Your task to perform on an android device: Do I have any events today? Image 0: 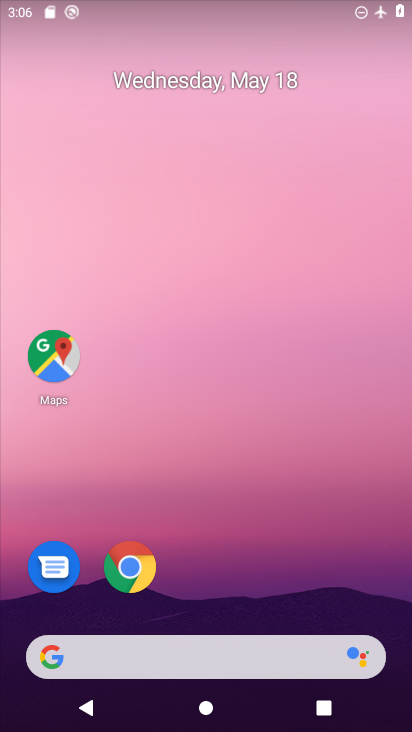
Step 0: drag from (231, 545) to (193, 285)
Your task to perform on an android device: Do I have any events today? Image 1: 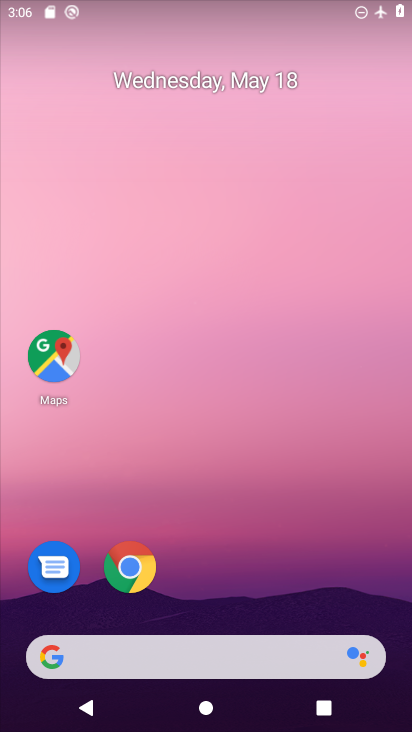
Step 1: drag from (205, 602) to (171, 287)
Your task to perform on an android device: Do I have any events today? Image 2: 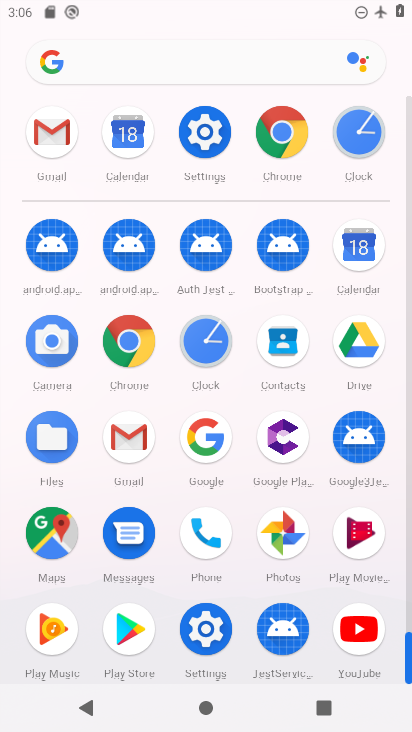
Step 2: click (355, 242)
Your task to perform on an android device: Do I have any events today? Image 3: 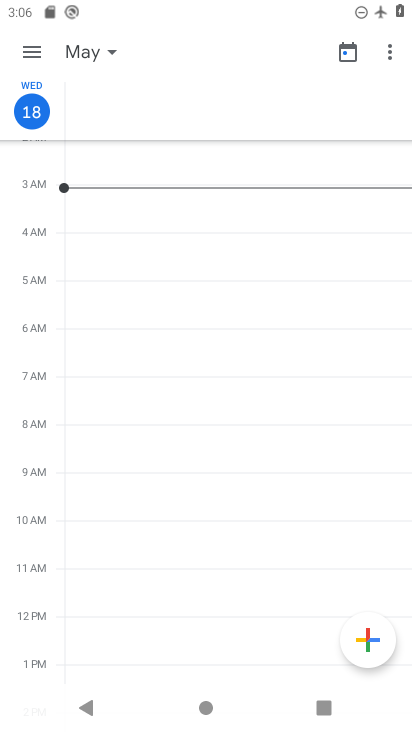
Step 3: task complete